Your task to perform on an android device: Go to sound settings Image 0: 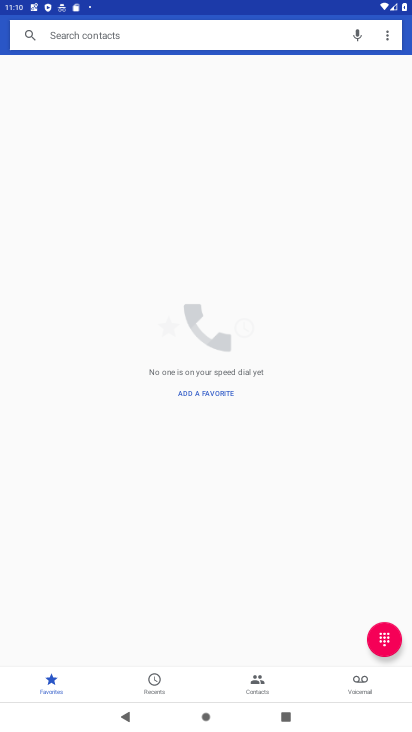
Step 0: press home button
Your task to perform on an android device: Go to sound settings Image 1: 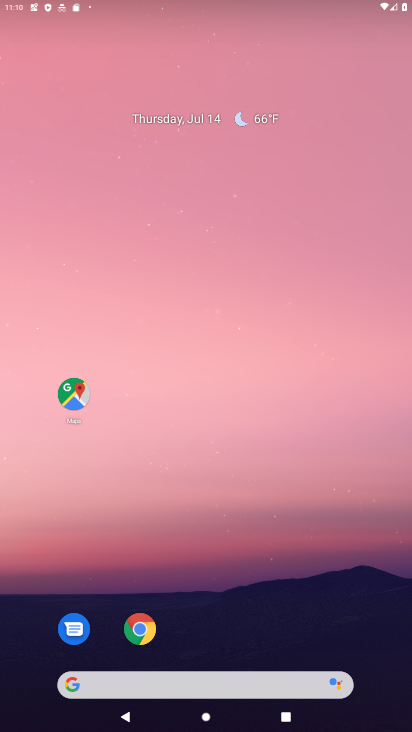
Step 1: drag from (310, 625) to (343, 149)
Your task to perform on an android device: Go to sound settings Image 2: 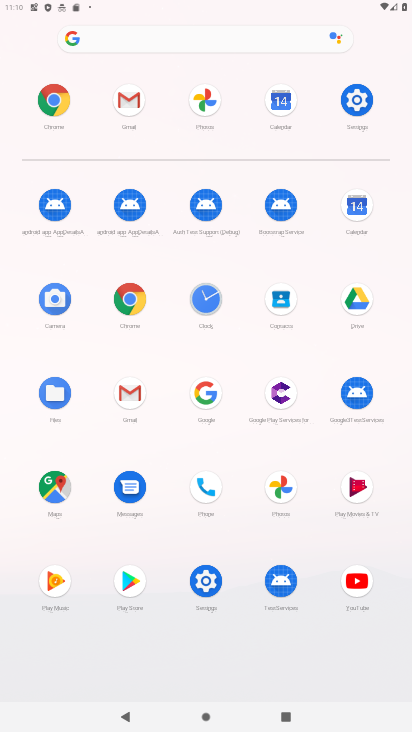
Step 2: click (356, 107)
Your task to perform on an android device: Go to sound settings Image 3: 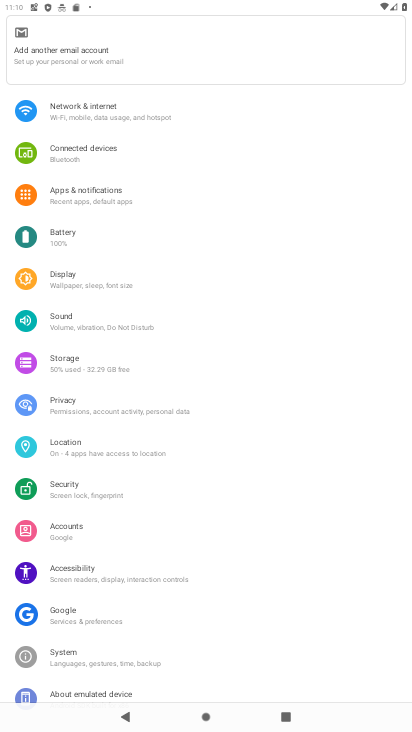
Step 3: click (52, 318)
Your task to perform on an android device: Go to sound settings Image 4: 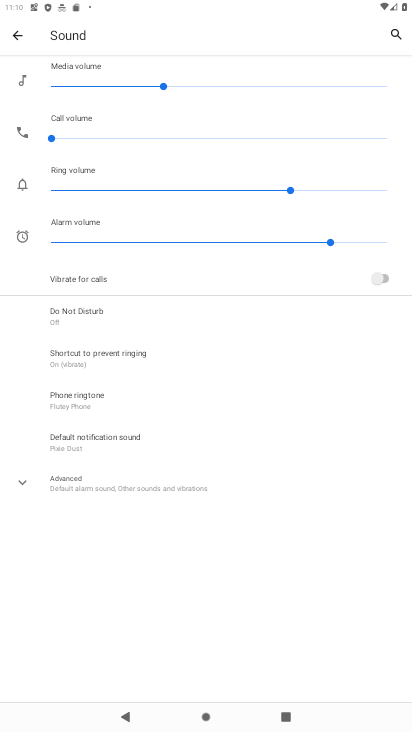
Step 4: task complete